Your task to perform on an android device: Open settings on Google Maps Image 0: 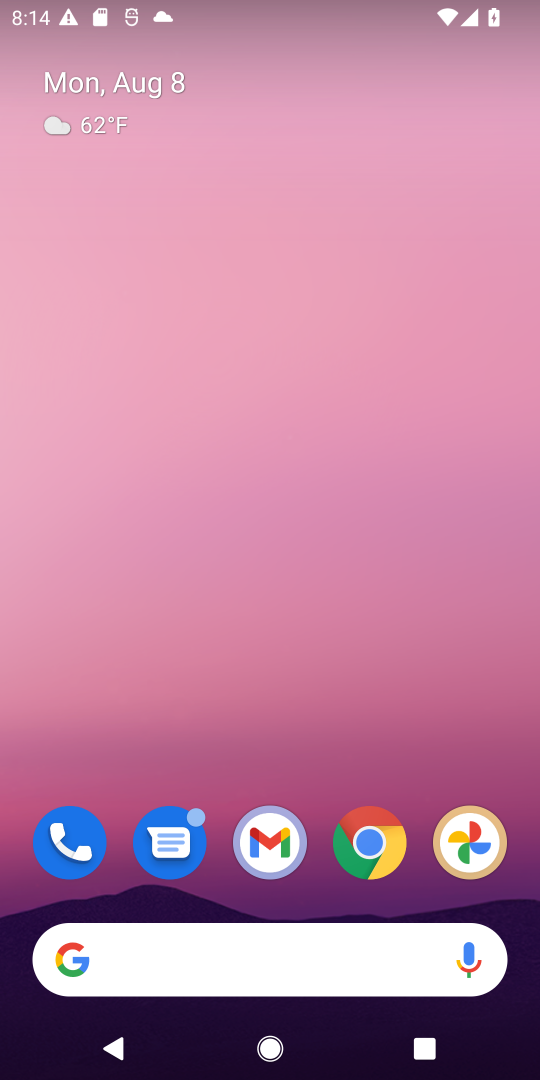
Step 0: drag from (285, 751) to (372, 0)
Your task to perform on an android device: Open settings on Google Maps Image 1: 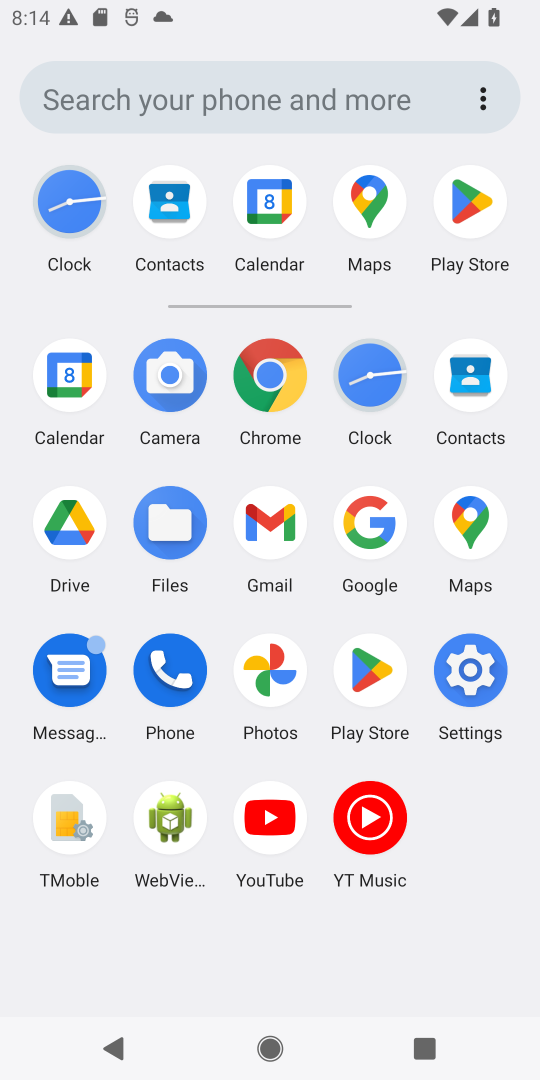
Step 1: click (472, 517)
Your task to perform on an android device: Open settings on Google Maps Image 2: 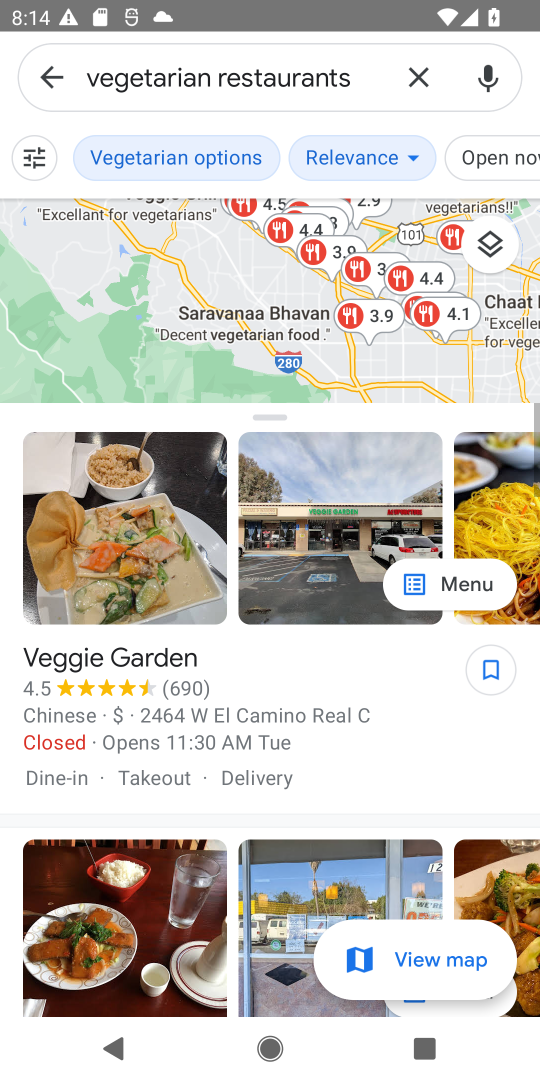
Step 2: click (60, 78)
Your task to perform on an android device: Open settings on Google Maps Image 3: 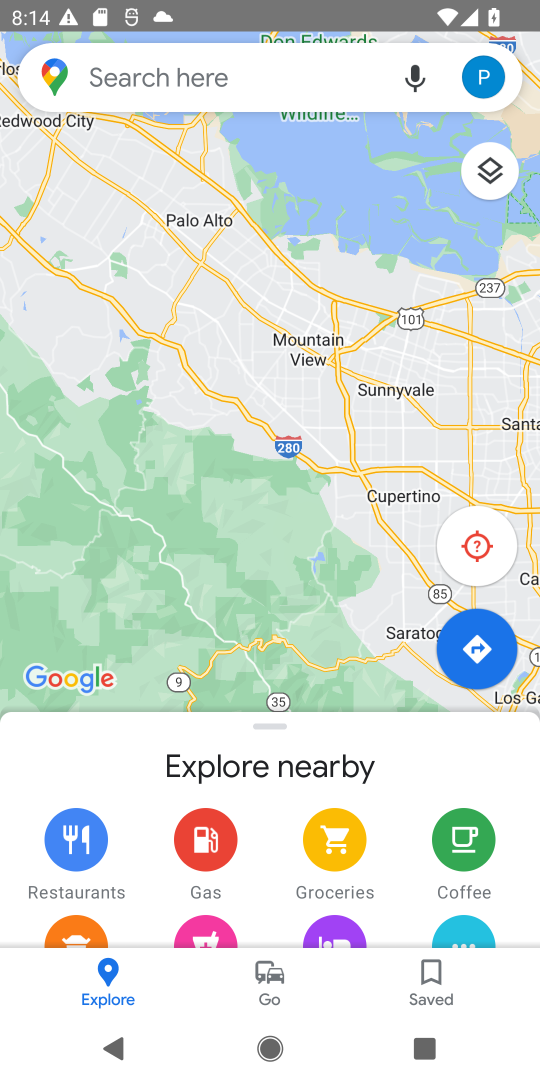
Step 3: click (56, 74)
Your task to perform on an android device: Open settings on Google Maps Image 4: 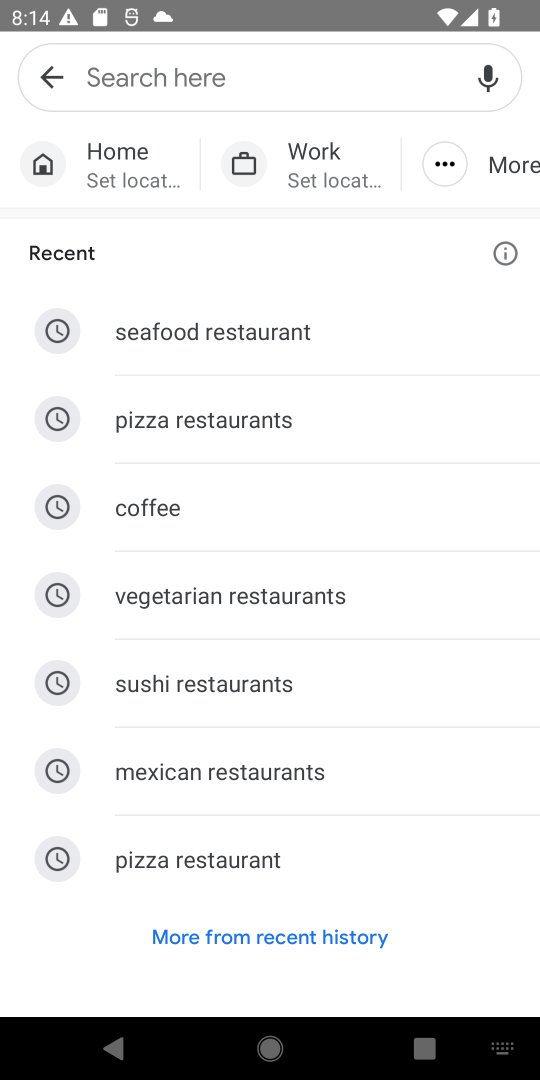
Step 4: click (56, 74)
Your task to perform on an android device: Open settings on Google Maps Image 5: 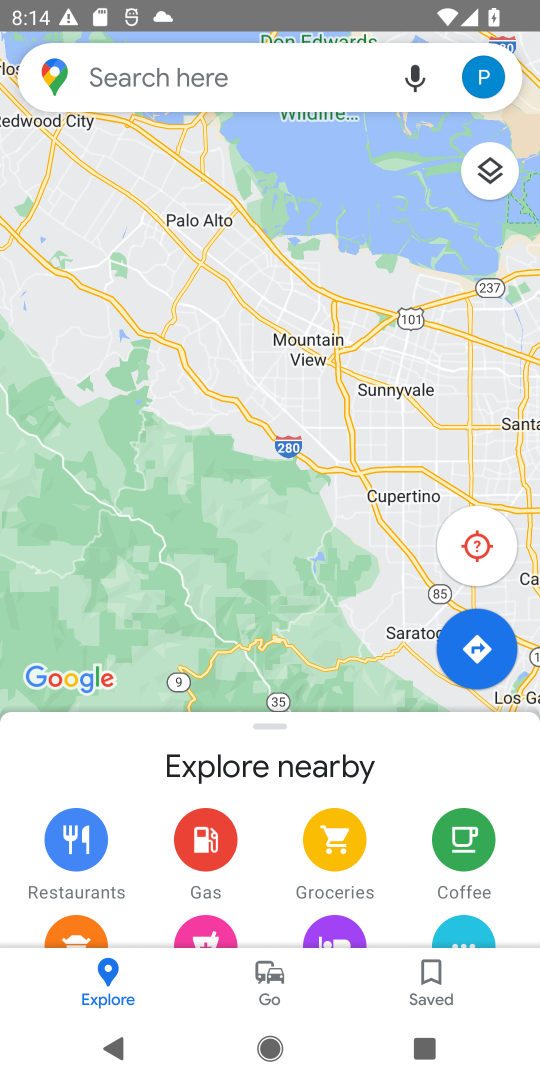
Step 5: click (481, 74)
Your task to perform on an android device: Open settings on Google Maps Image 6: 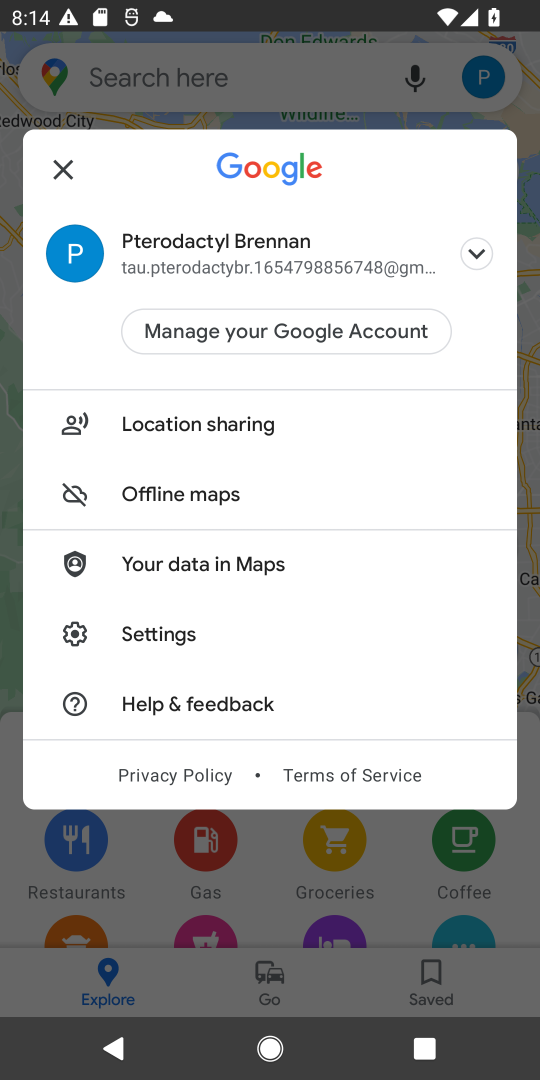
Step 6: click (182, 624)
Your task to perform on an android device: Open settings on Google Maps Image 7: 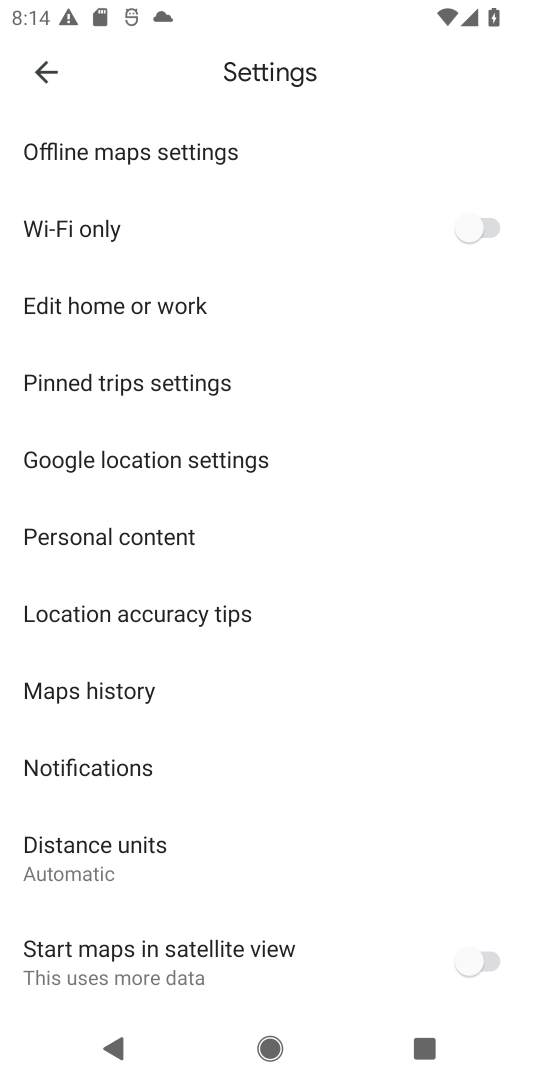
Step 7: task complete